Your task to perform on an android device: Go to network settings Image 0: 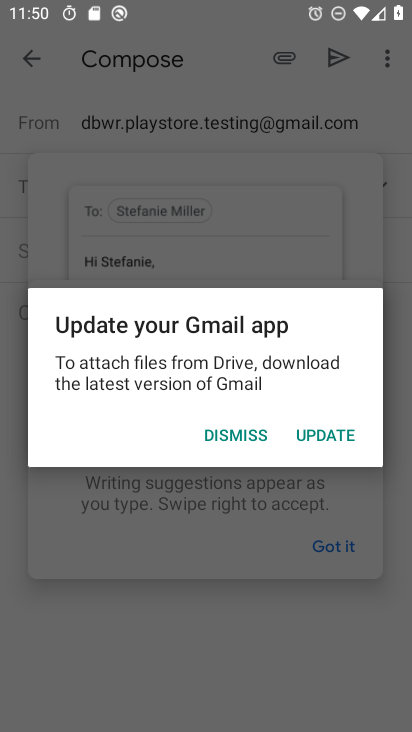
Step 0: press home button
Your task to perform on an android device: Go to network settings Image 1: 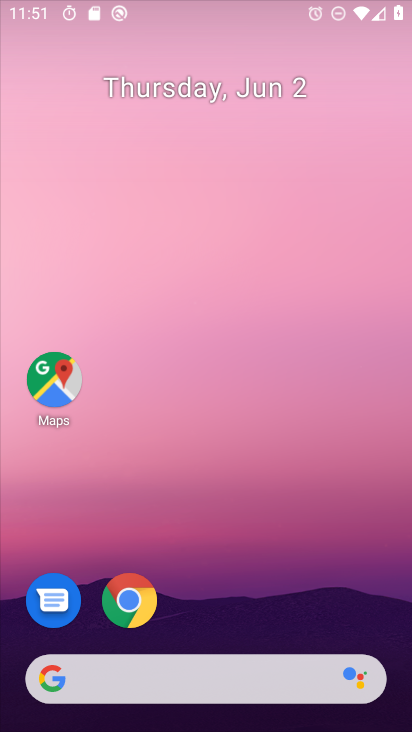
Step 1: drag from (236, 610) to (252, 91)
Your task to perform on an android device: Go to network settings Image 2: 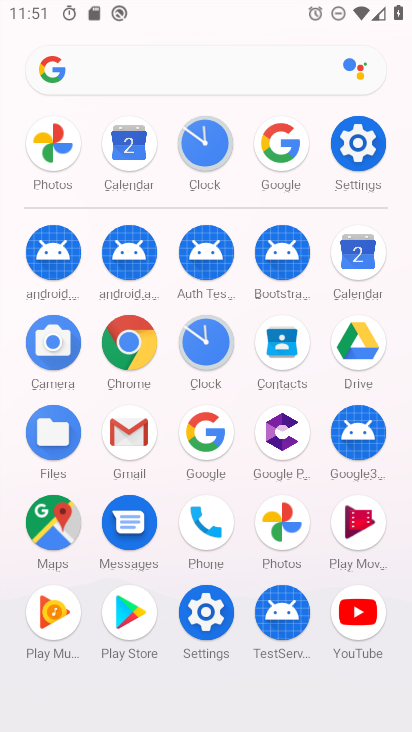
Step 2: click (361, 139)
Your task to perform on an android device: Go to network settings Image 3: 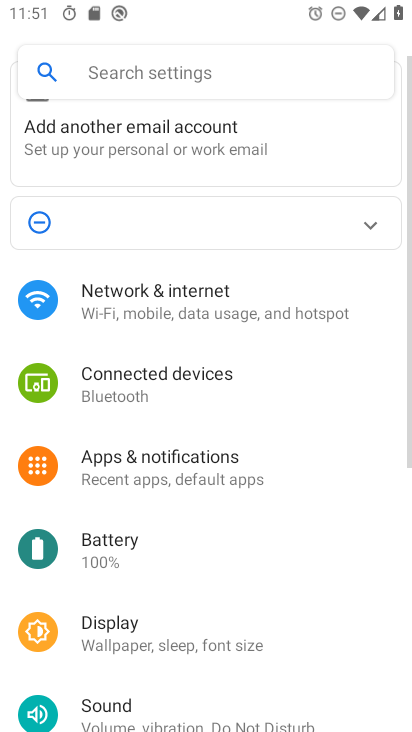
Step 3: click (164, 300)
Your task to perform on an android device: Go to network settings Image 4: 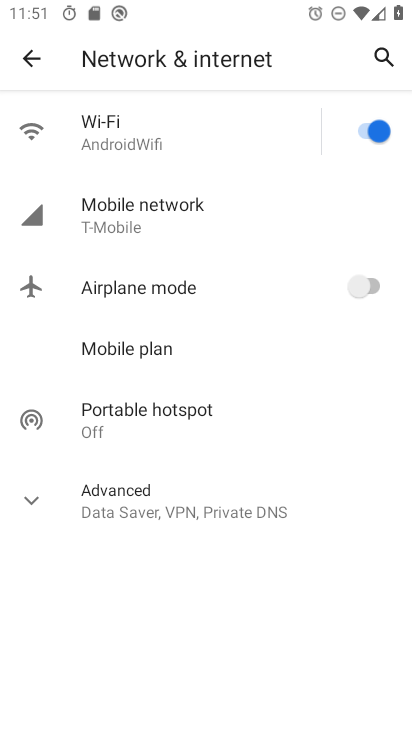
Step 4: click (148, 231)
Your task to perform on an android device: Go to network settings Image 5: 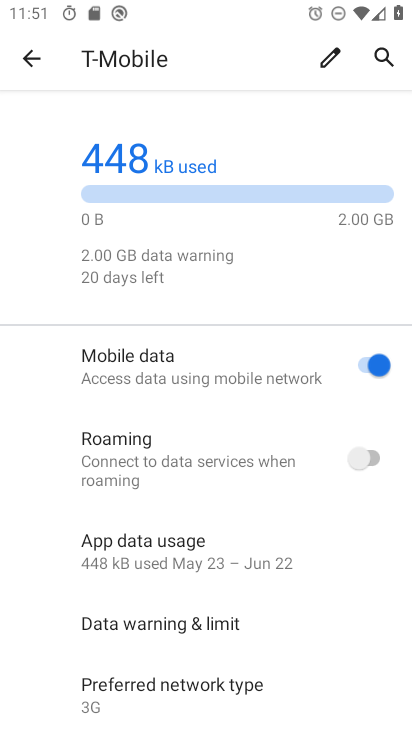
Step 5: drag from (235, 544) to (186, 204)
Your task to perform on an android device: Go to network settings Image 6: 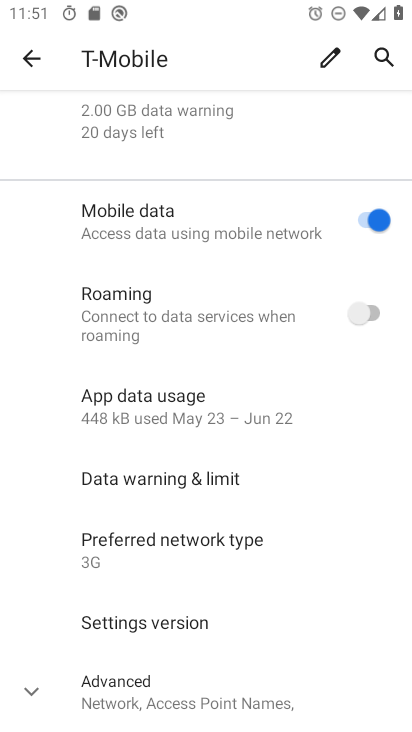
Step 6: click (137, 687)
Your task to perform on an android device: Go to network settings Image 7: 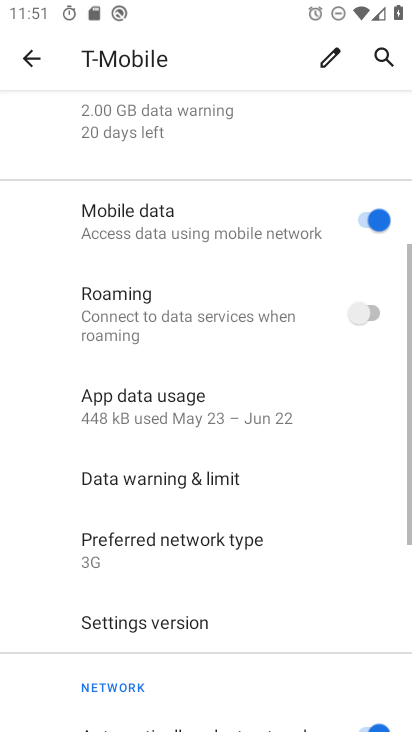
Step 7: drag from (177, 634) to (208, 331)
Your task to perform on an android device: Go to network settings Image 8: 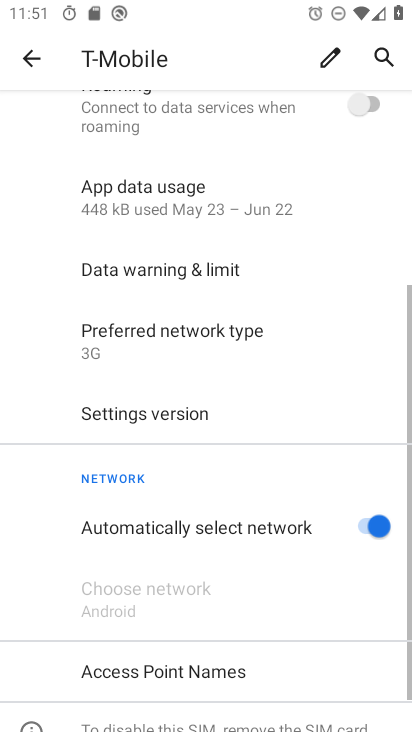
Step 8: drag from (211, 314) to (219, 278)
Your task to perform on an android device: Go to network settings Image 9: 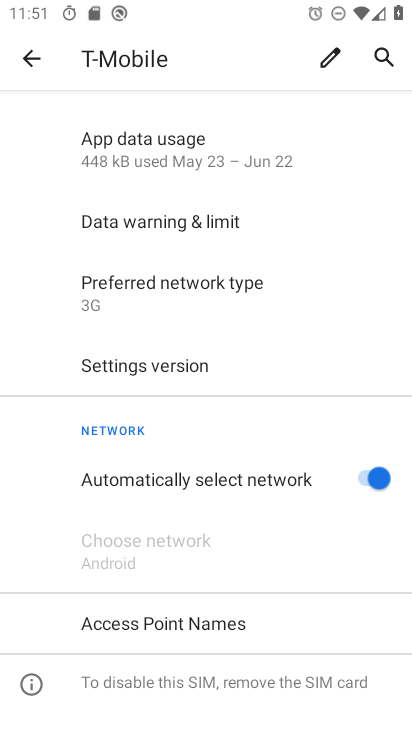
Step 9: click (120, 476)
Your task to perform on an android device: Go to network settings Image 10: 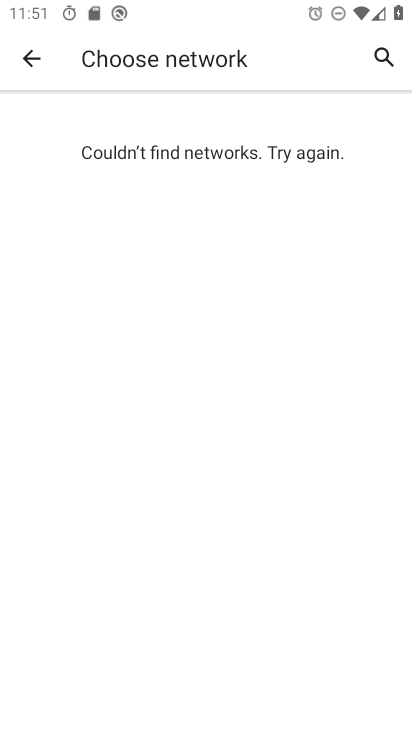
Step 10: task complete